Your task to perform on an android device: Open accessibility settings Image 0: 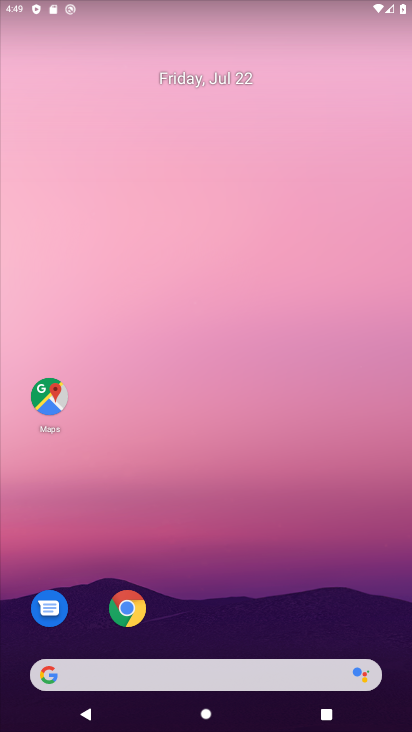
Step 0: drag from (165, 623) to (152, 166)
Your task to perform on an android device: Open accessibility settings Image 1: 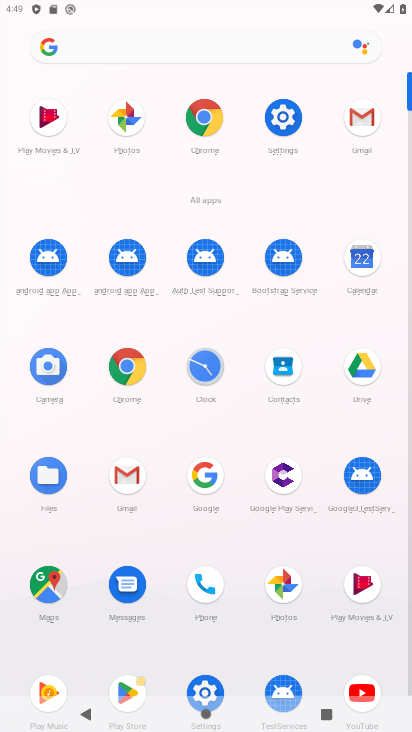
Step 1: click (283, 115)
Your task to perform on an android device: Open accessibility settings Image 2: 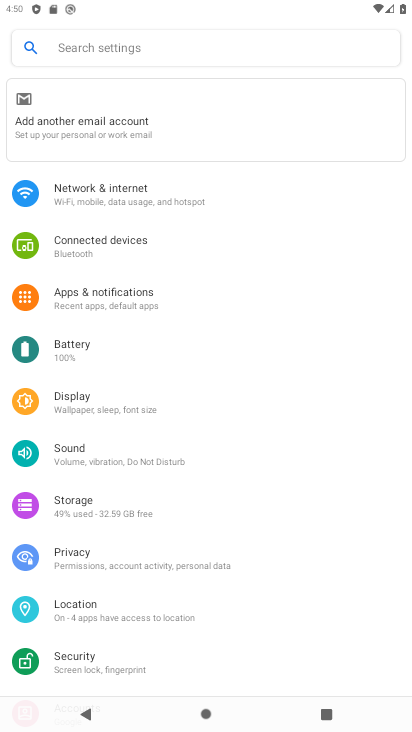
Step 2: drag from (103, 616) to (200, 77)
Your task to perform on an android device: Open accessibility settings Image 3: 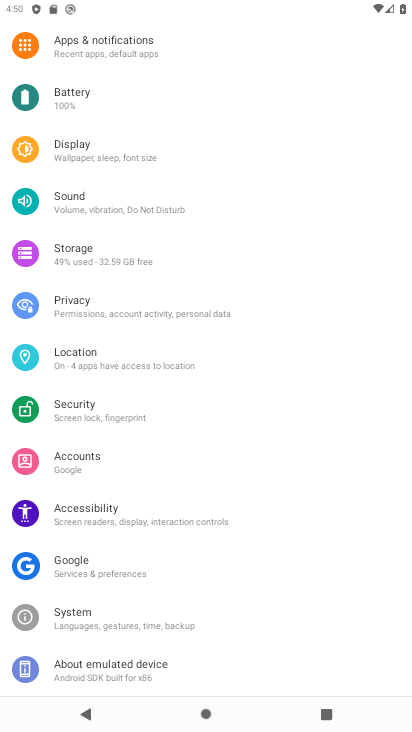
Step 3: click (78, 511)
Your task to perform on an android device: Open accessibility settings Image 4: 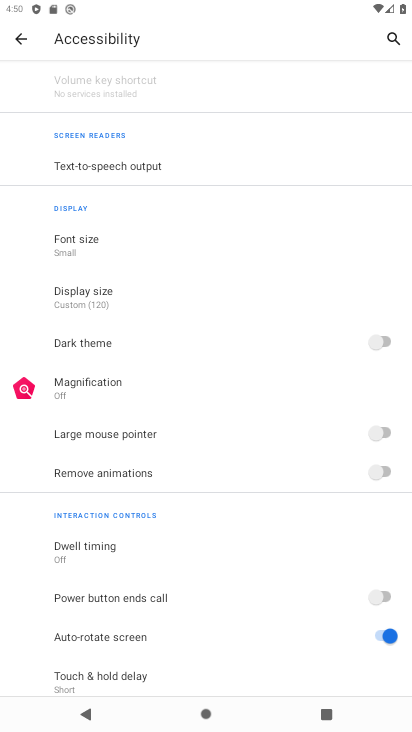
Step 4: task complete